Your task to perform on an android device: turn off location Image 0: 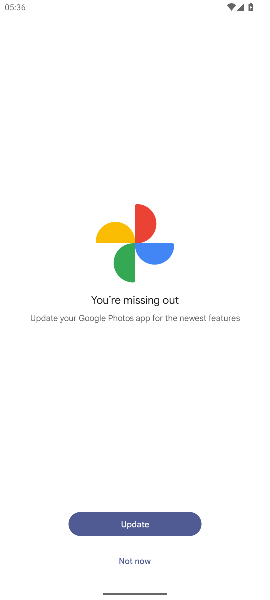
Step 0: press home button
Your task to perform on an android device: turn off location Image 1: 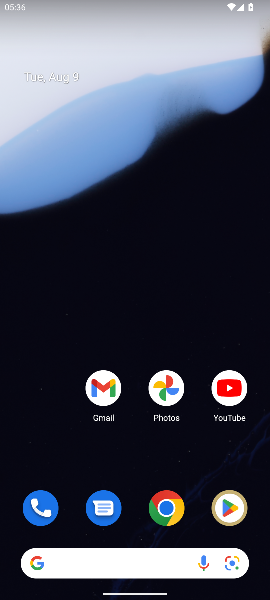
Step 1: drag from (155, 446) to (111, 61)
Your task to perform on an android device: turn off location Image 2: 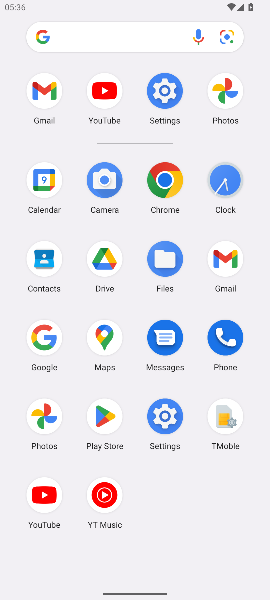
Step 2: click (160, 415)
Your task to perform on an android device: turn off location Image 3: 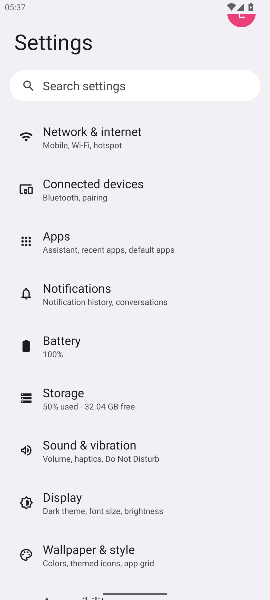
Step 3: drag from (136, 456) to (133, 195)
Your task to perform on an android device: turn off location Image 4: 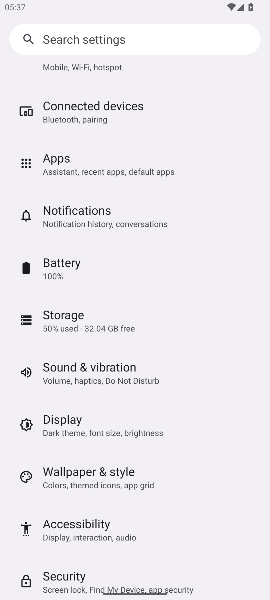
Step 4: drag from (108, 462) to (108, 250)
Your task to perform on an android device: turn off location Image 5: 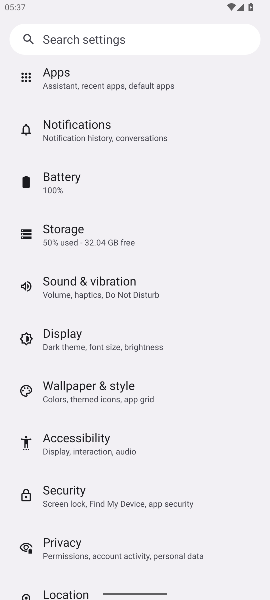
Step 5: click (71, 585)
Your task to perform on an android device: turn off location Image 6: 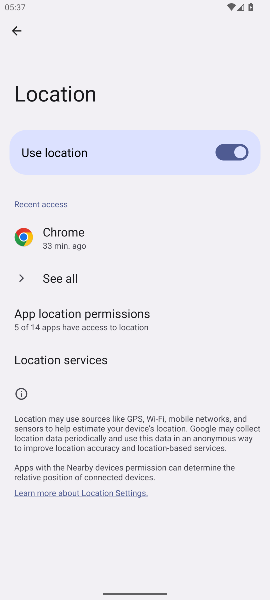
Step 6: click (215, 150)
Your task to perform on an android device: turn off location Image 7: 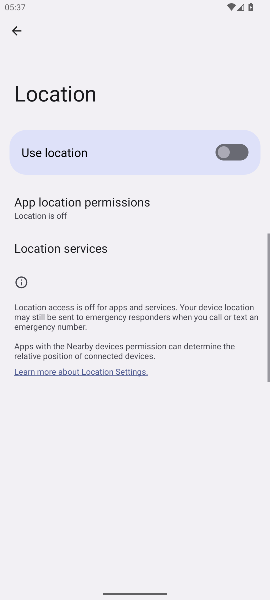
Step 7: task complete